Your task to perform on an android device: Go to location settings Image 0: 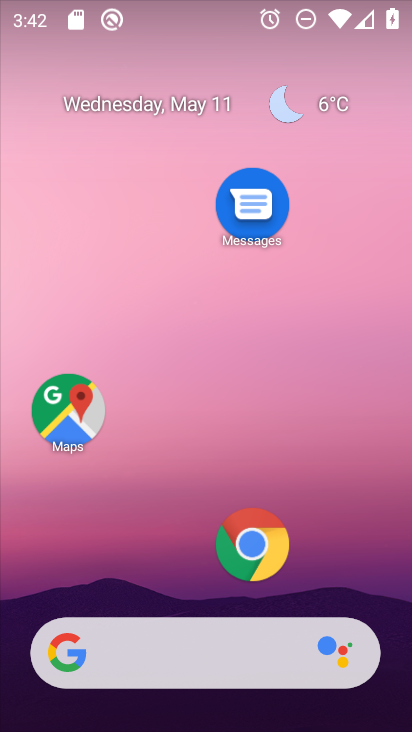
Step 0: drag from (161, 595) to (248, 48)
Your task to perform on an android device: Go to location settings Image 1: 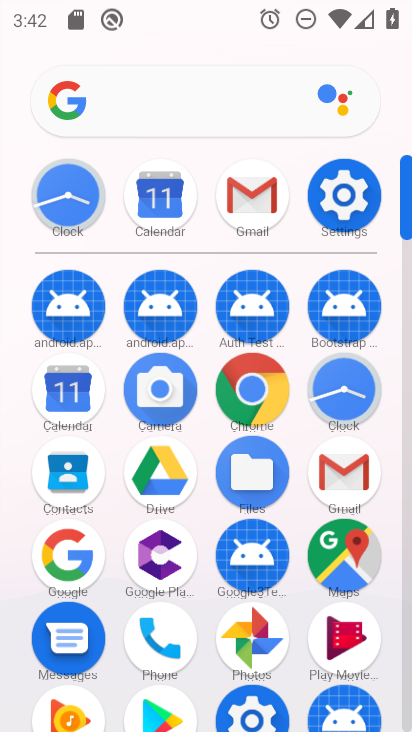
Step 1: click (338, 188)
Your task to perform on an android device: Go to location settings Image 2: 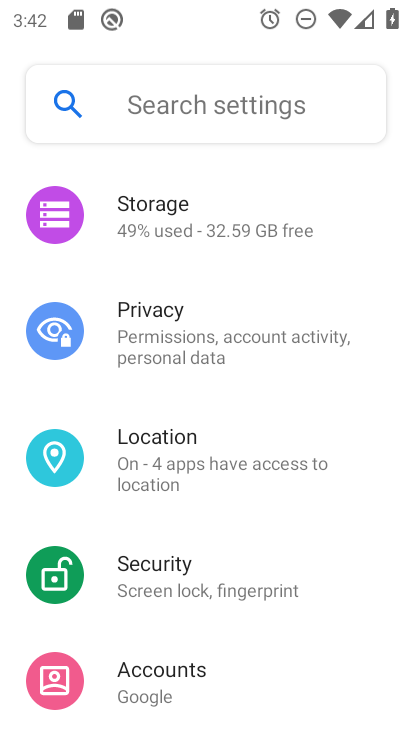
Step 2: click (175, 465)
Your task to perform on an android device: Go to location settings Image 3: 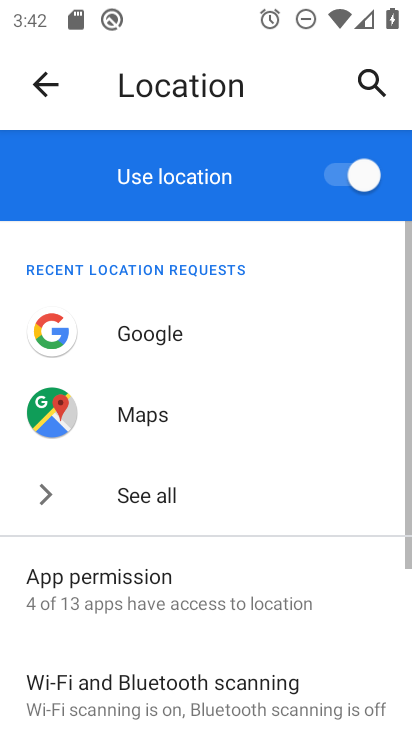
Step 3: task complete